Your task to perform on an android device: change alarm snooze length Image 0: 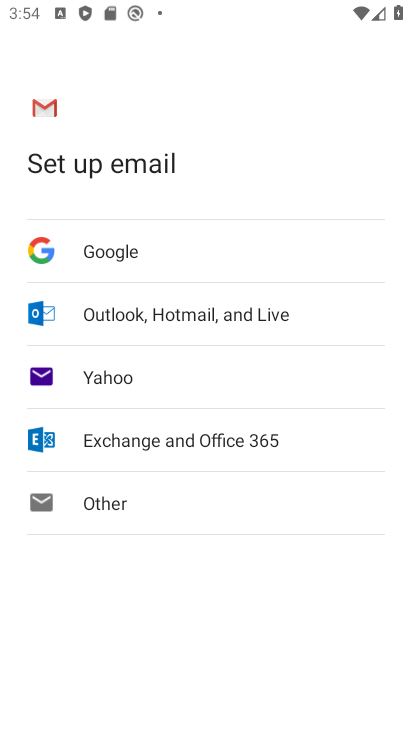
Step 0: press home button
Your task to perform on an android device: change alarm snooze length Image 1: 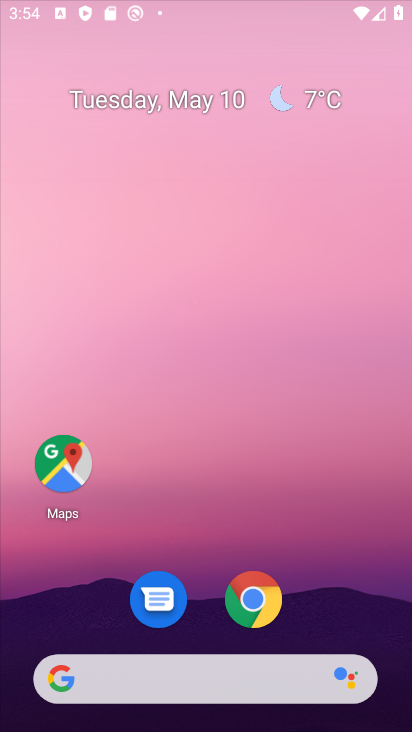
Step 1: drag from (195, 685) to (208, 189)
Your task to perform on an android device: change alarm snooze length Image 2: 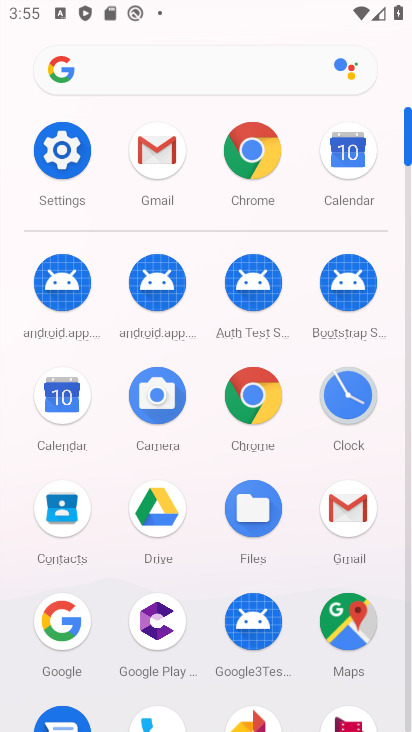
Step 2: click (74, 169)
Your task to perform on an android device: change alarm snooze length Image 3: 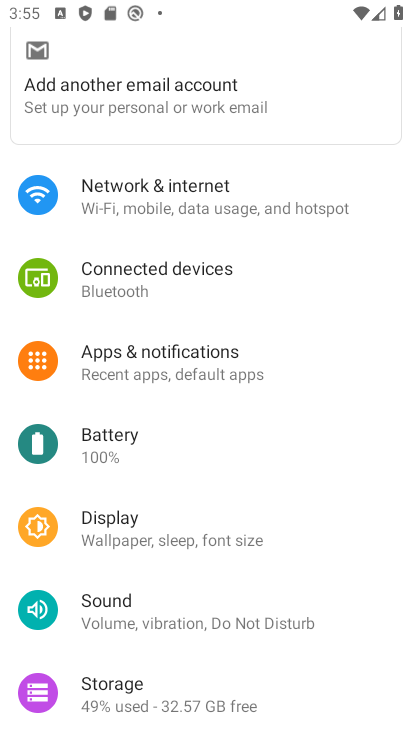
Step 3: drag from (162, 572) to (177, 328)
Your task to perform on an android device: change alarm snooze length Image 4: 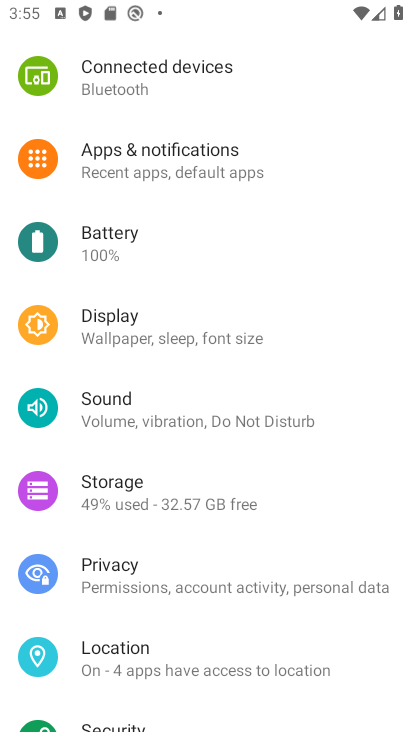
Step 4: press home button
Your task to perform on an android device: change alarm snooze length Image 5: 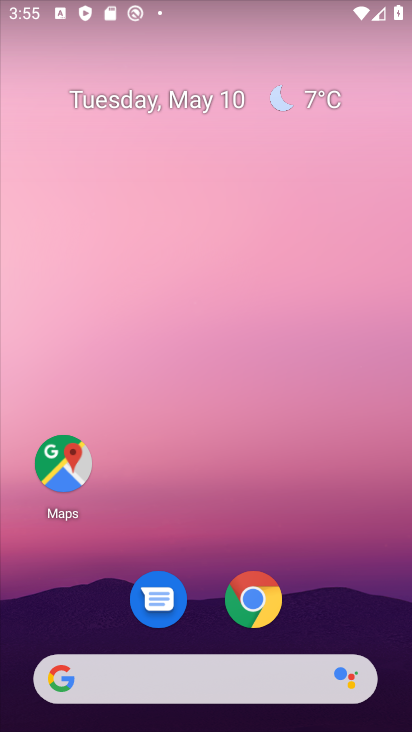
Step 5: drag from (291, 643) to (285, 62)
Your task to perform on an android device: change alarm snooze length Image 6: 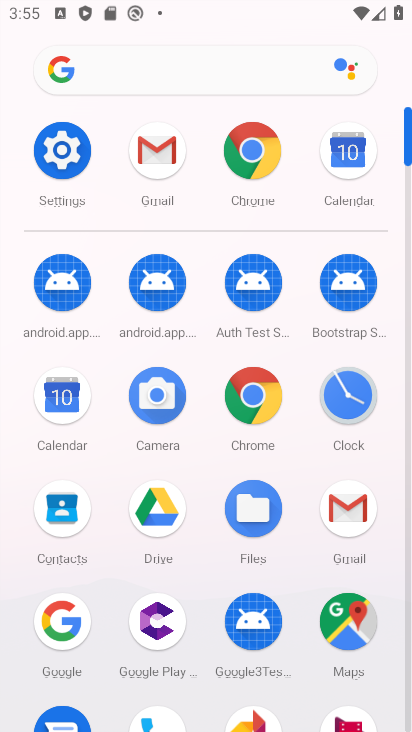
Step 6: click (345, 407)
Your task to perform on an android device: change alarm snooze length Image 7: 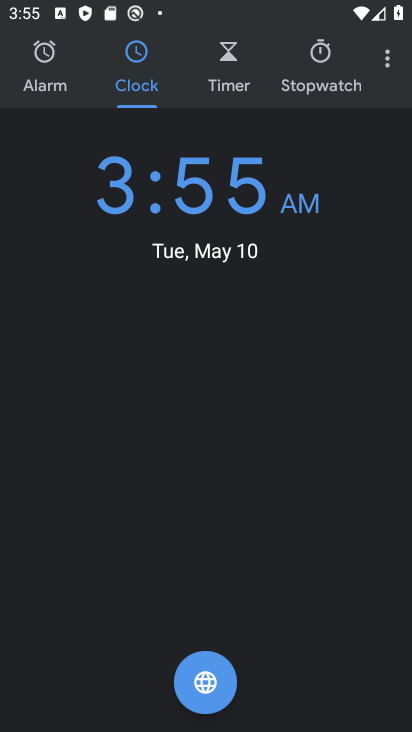
Step 7: click (384, 65)
Your task to perform on an android device: change alarm snooze length Image 8: 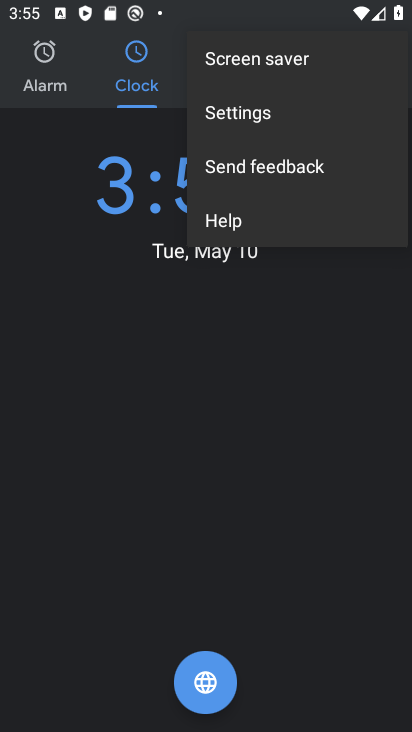
Step 8: click (237, 123)
Your task to perform on an android device: change alarm snooze length Image 9: 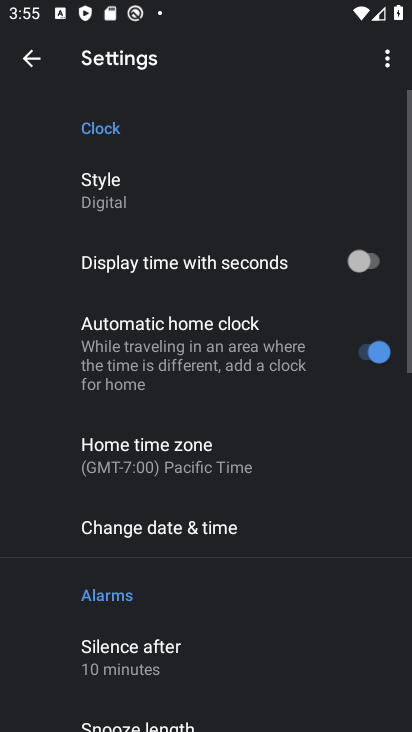
Step 9: drag from (174, 568) to (221, 228)
Your task to perform on an android device: change alarm snooze length Image 10: 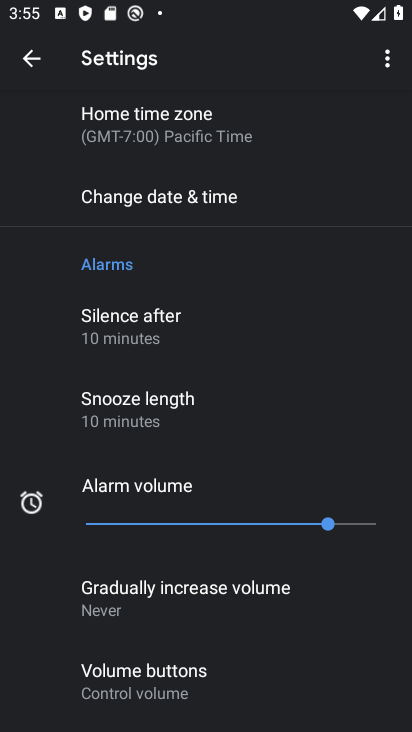
Step 10: click (208, 403)
Your task to perform on an android device: change alarm snooze length Image 11: 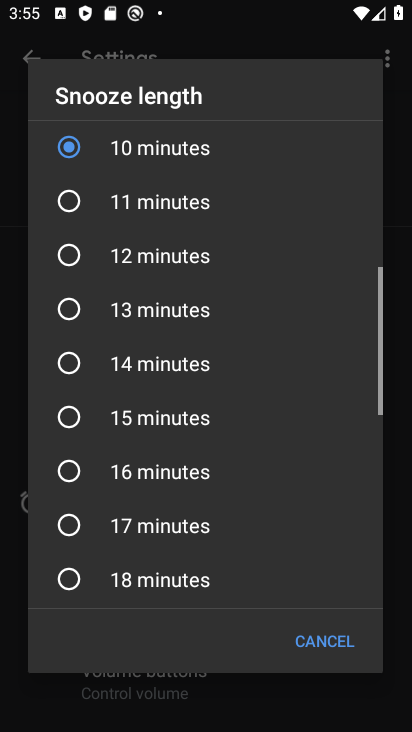
Step 11: click (104, 255)
Your task to perform on an android device: change alarm snooze length Image 12: 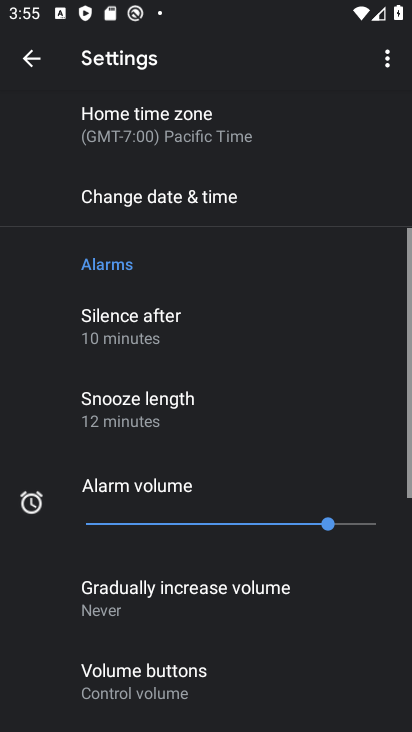
Step 12: task complete